Your task to perform on an android device: change the upload size in google photos Image 0: 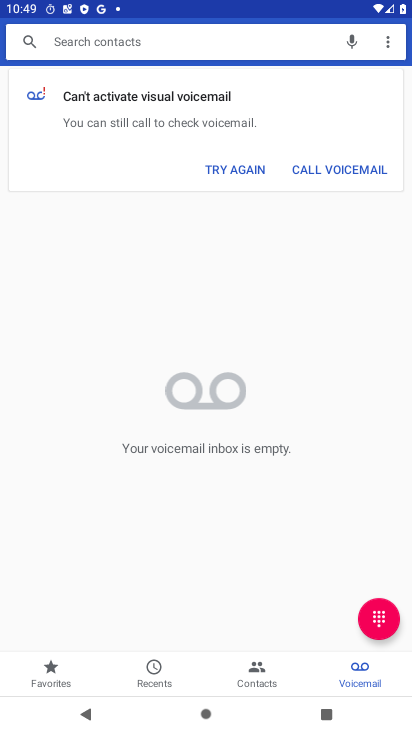
Step 0: press home button
Your task to perform on an android device: change the upload size in google photos Image 1: 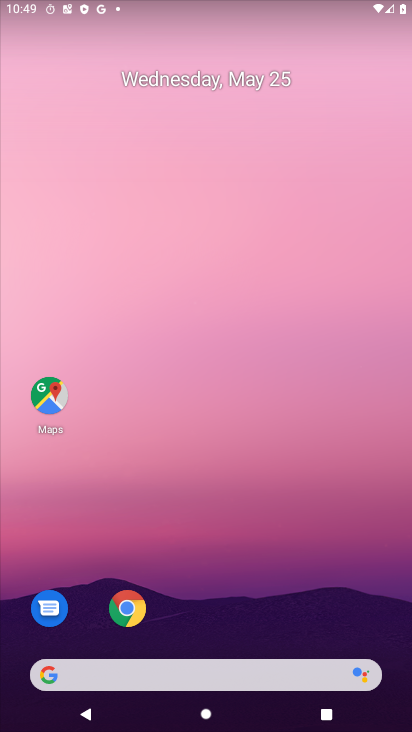
Step 1: drag from (253, 639) to (262, 37)
Your task to perform on an android device: change the upload size in google photos Image 2: 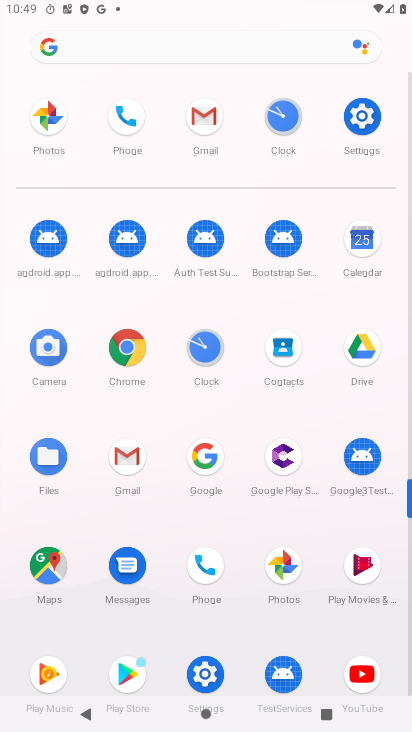
Step 2: click (283, 567)
Your task to perform on an android device: change the upload size in google photos Image 3: 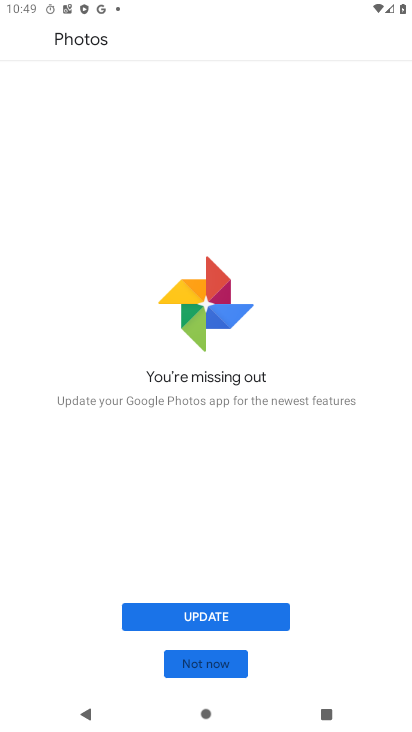
Step 3: click (199, 667)
Your task to perform on an android device: change the upload size in google photos Image 4: 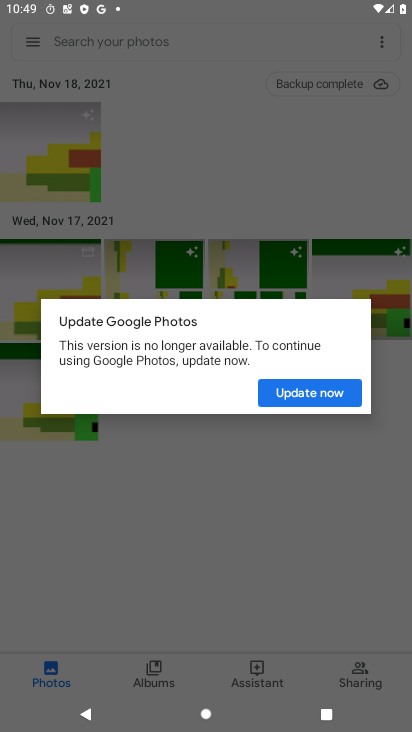
Step 4: click (318, 390)
Your task to perform on an android device: change the upload size in google photos Image 5: 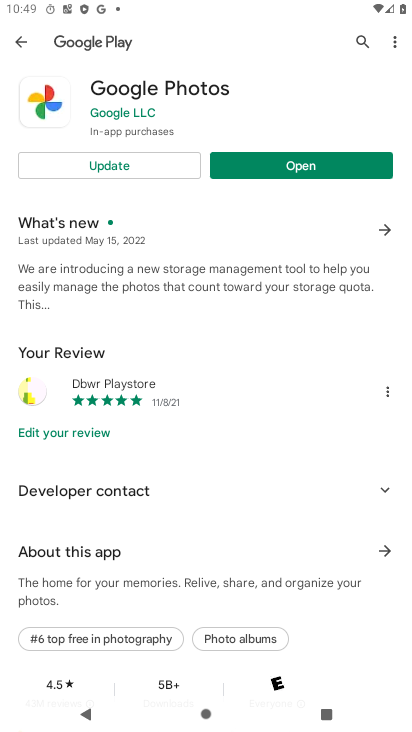
Step 5: click (279, 162)
Your task to perform on an android device: change the upload size in google photos Image 6: 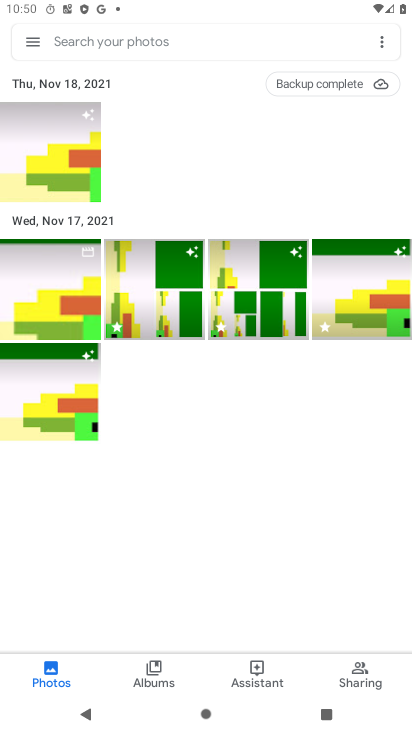
Step 6: click (32, 43)
Your task to perform on an android device: change the upload size in google photos Image 7: 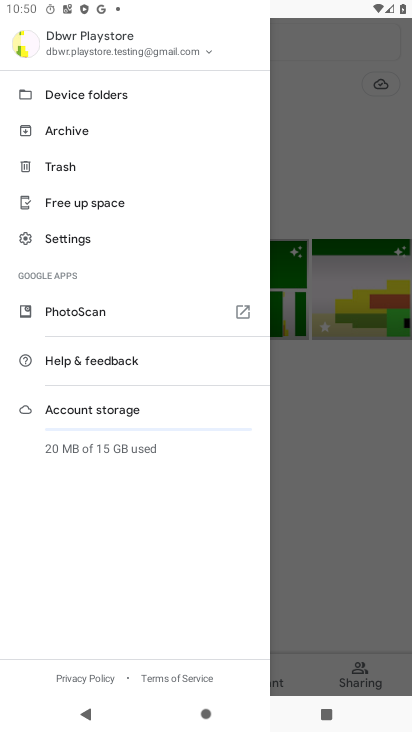
Step 7: click (60, 246)
Your task to perform on an android device: change the upload size in google photos Image 8: 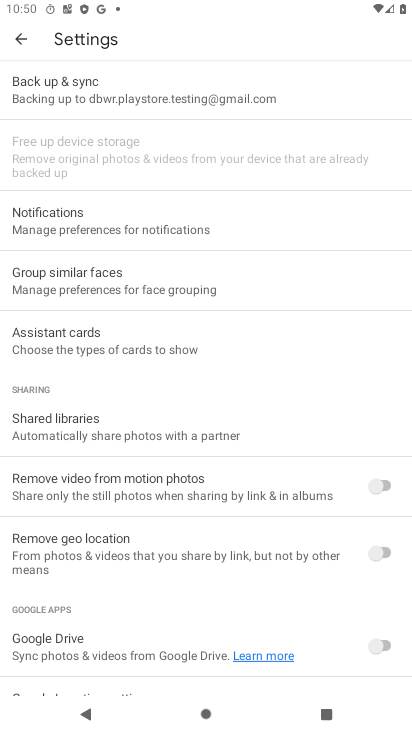
Step 8: click (61, 98)
Your task to perform on an android device: change the upload size in google photos Image 9: 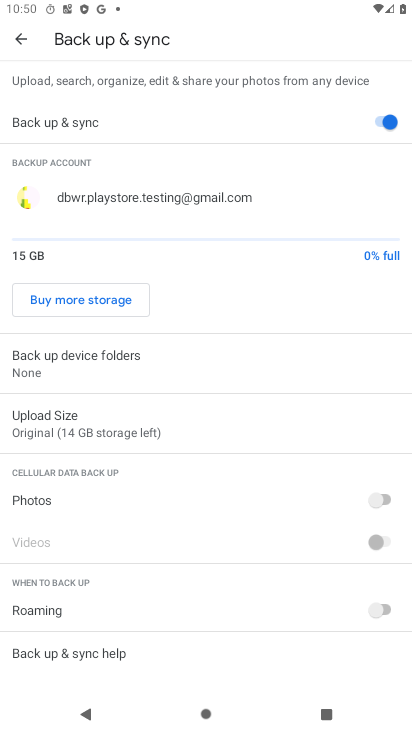
Step 9: click (67, 424)
Your task to perform on an android device: change the upload size in google photos Image 10: 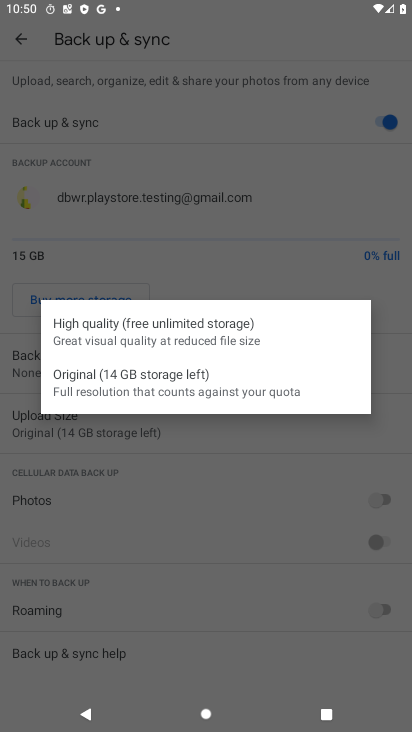
Step 10: click (97, 337)
Your task to perform on an android device: change the upload size in google photos Image 11: 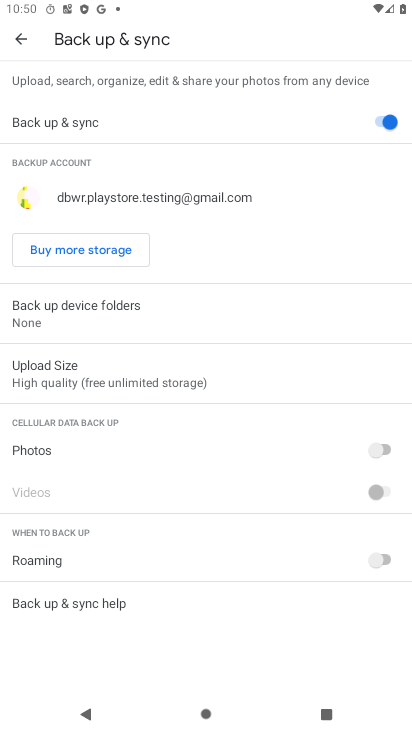
Step 11: task complete